Your task to perform on an android device: choose inbox layout in the gmail app Image 0: 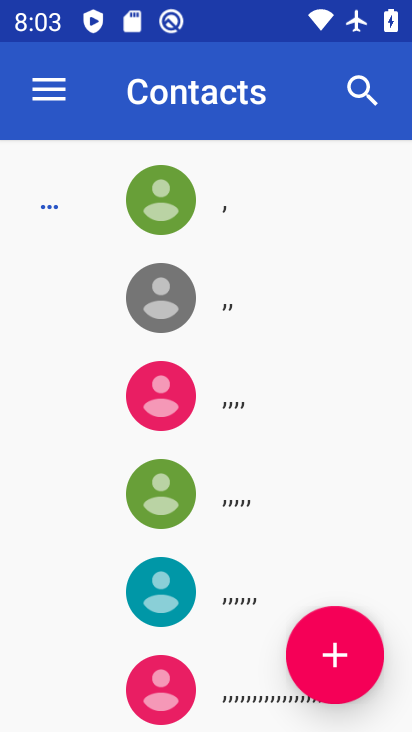
Step 0: press home button
Your task to perform on an android device: choose inbox layout in the gmail app Image 1: 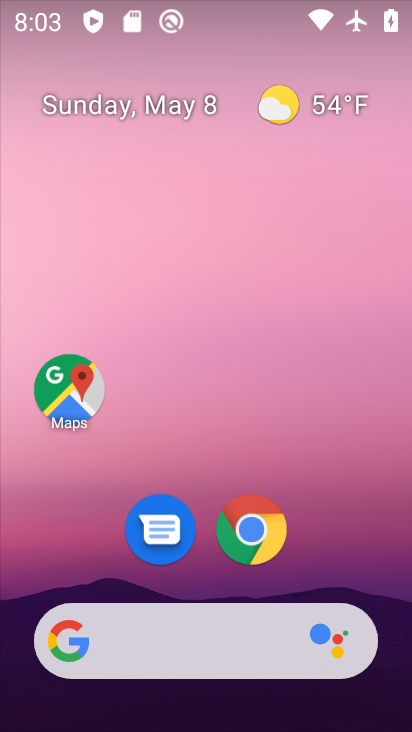
Step 1: drag from (358, 531) to (357, 72)
Your task to perform on an android device: choose inbox layout in the gmail app Image 2: 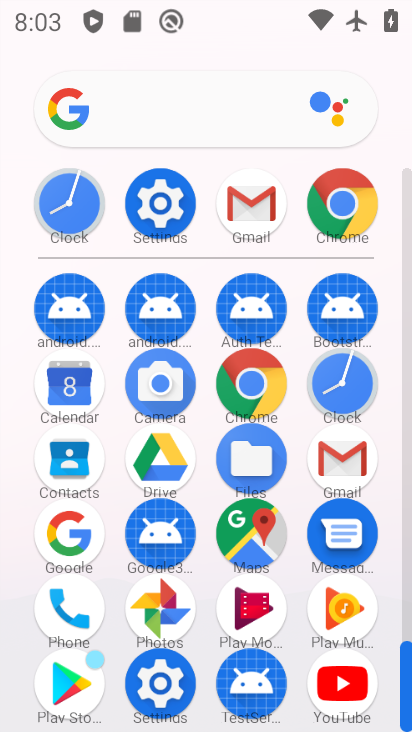
Step 2: click (337, 471)
Your task to perform on an android device: choose inbox layout in the gmail app Image 3: 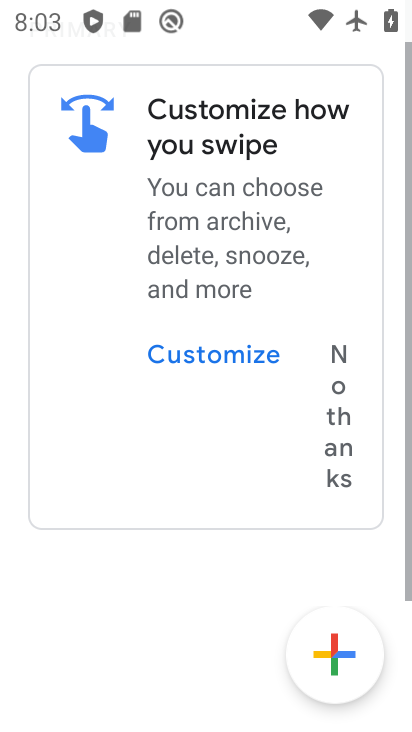
Step 3: drag from (89, 148) to (142, 534)
Your task to perform on an android device: choose inbox layout in the gmail app Image 4: 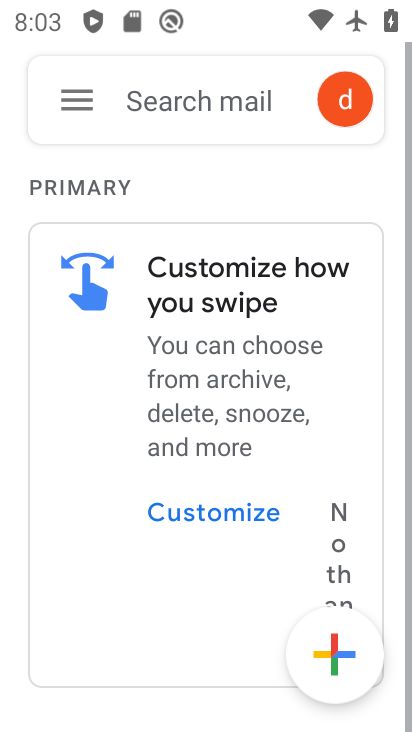
Step 4: click (71, 100)
Your task to perform on an android device: choose inbox layout in the gmail app Image 5: 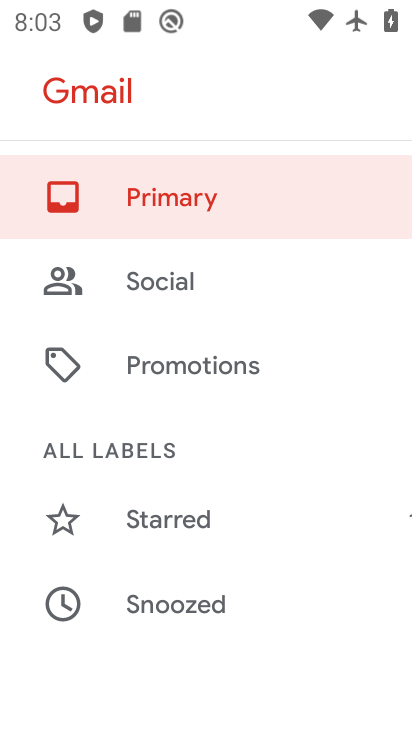
Step 5: drag from (249, 571) to (292, 286)
Your task to perform on an android device: choose inbox layout in the gmail app Image 6: 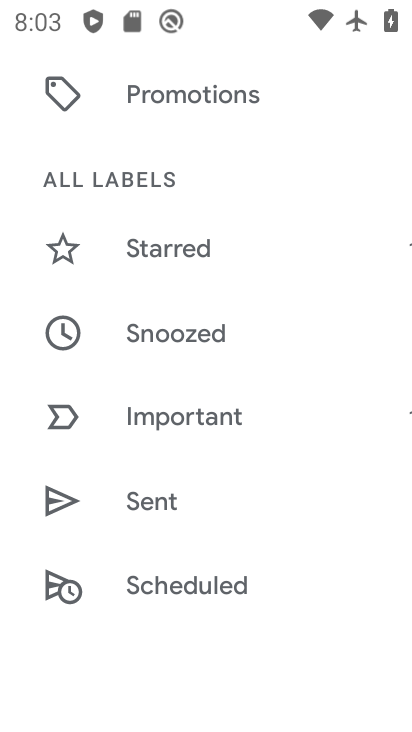
Step 6: drag from (276, 607) to (300, 304)
Your task to perform on an android device: choose inbox layout in the gmail app Image 7: 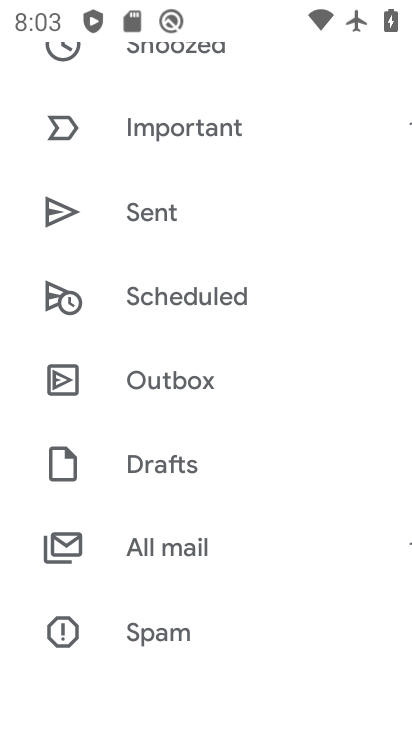
Step 7: drag from (247, 577) to (249, 265)
Your task to perform on an android device: choose inbox layout in the gmail app Image 8: 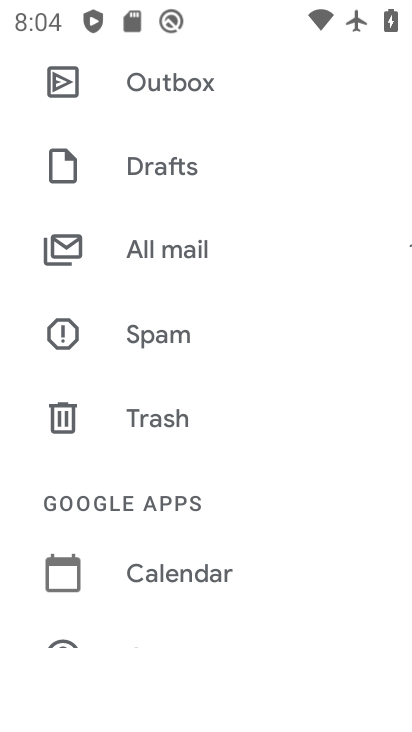
Step 8: drag from (219, 524) to (254, 176)
Your task to perform on an android device: choose inbox layout in the gmail app Image 9: 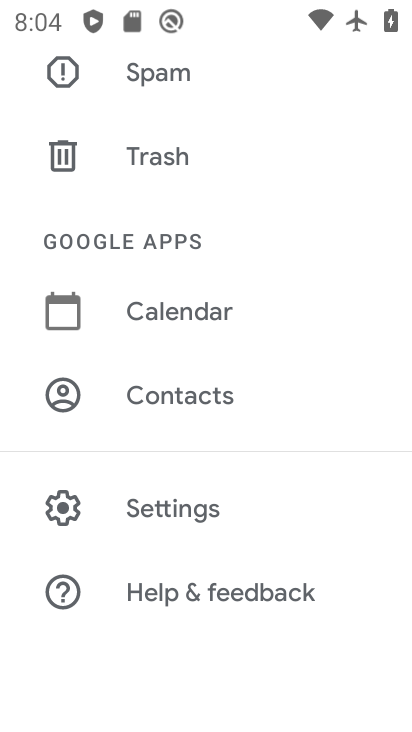
Step 9: click (203, 516)
Your task to perform on an android device: choose inbox layout in the gmail app Image 10: 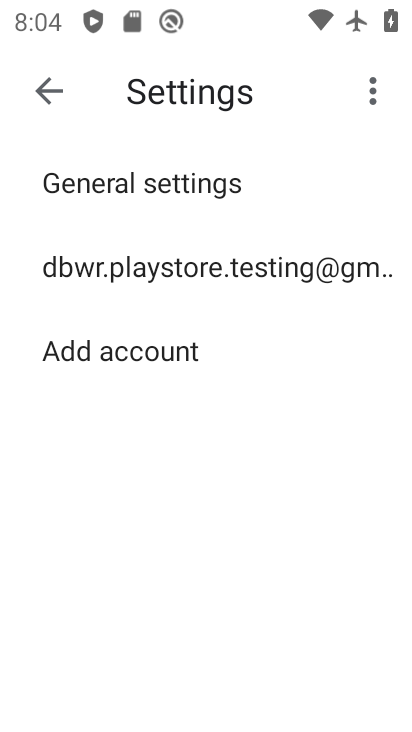
Step 10: click (229, 267)
Your task to perform on an android device: choose inbox layout in the gmail app Image 11: 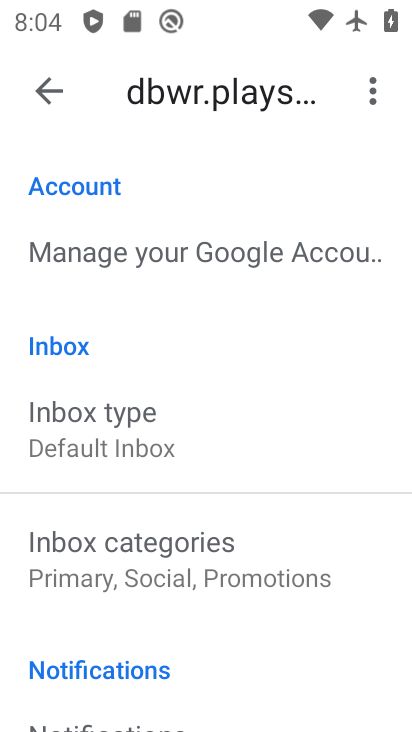
Step 11: click (130, 428)
Your task to perform on an android device: choose inbox layout in the gmail app Image 12: 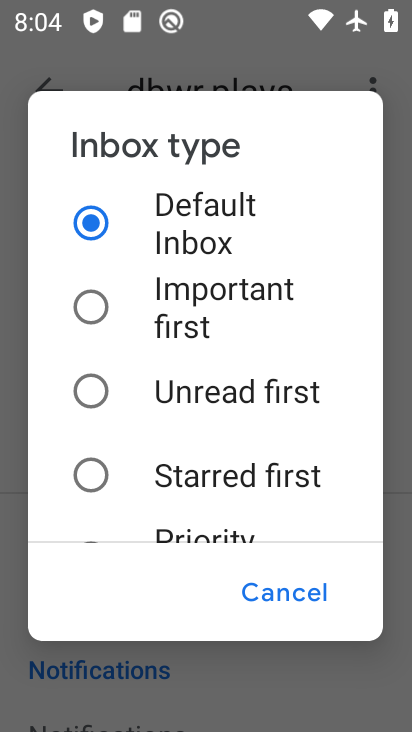
Step 12: click (82, 304)
Your task to perform on an android device: choose inbox layout in the gmail app Image 13: 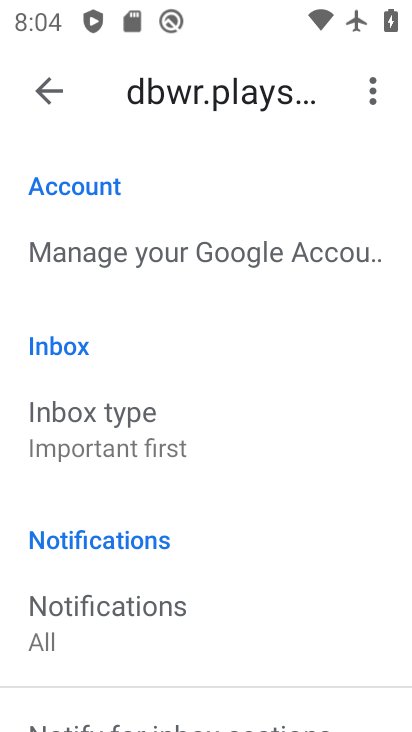
Step 13: task complete